Your task to perform on an android device: Set the phone to "Do not disturb". Image 0: 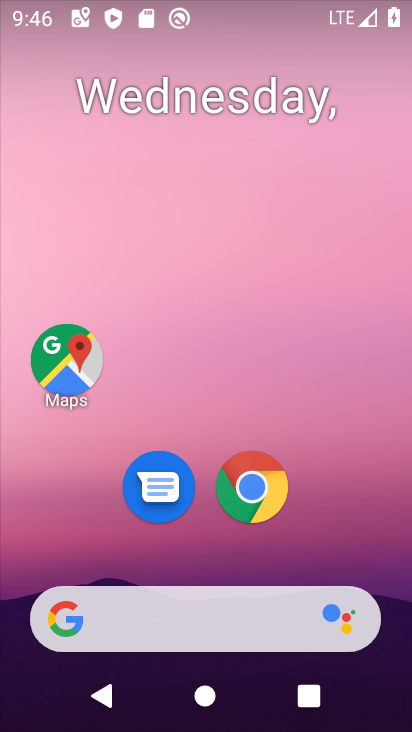
Step 0: drag from (354, 539) to (242, 49)
Your task to perform on an android device: Set the phone to "Do not disturb". Image 1: 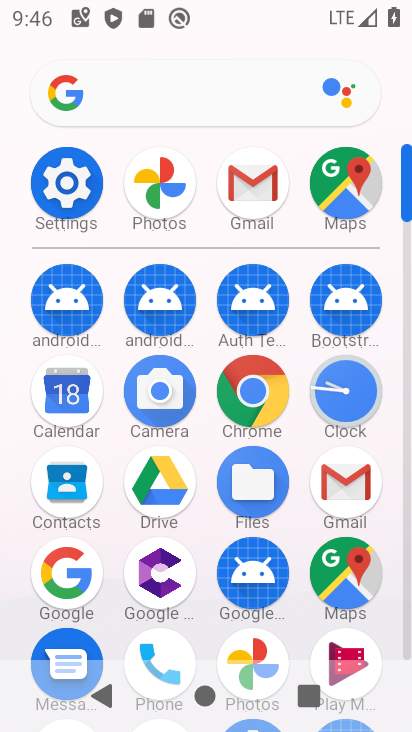
Step 1: click (69, 179)
Your task to perform on an android device: Set the phone to "Do not disturb". Image 2: 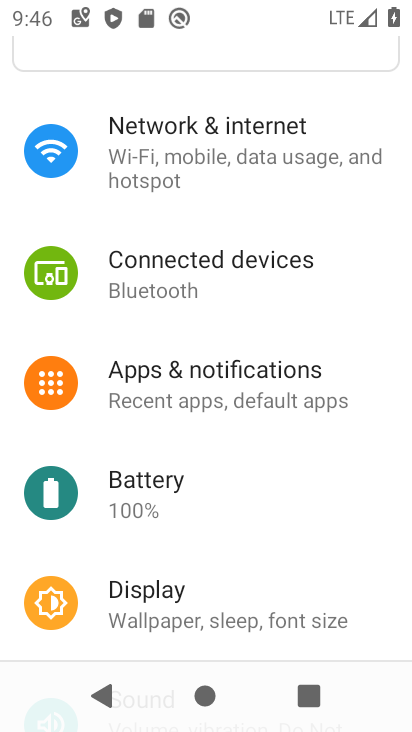
Step 2: drag from (222, 497) to (193, 204)
Your task to perform on an android device: Set the phone to "Do not disturb". Image 3: 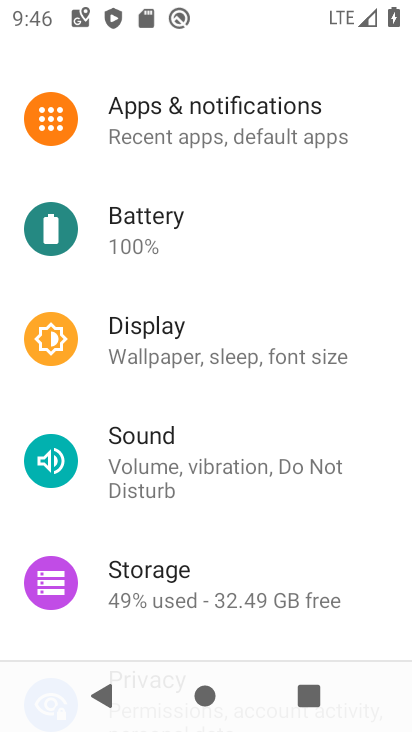
Step 3: click (142, 441)
Your task to perform on an android device: Set the phone to "Do not disturb". Image 4: 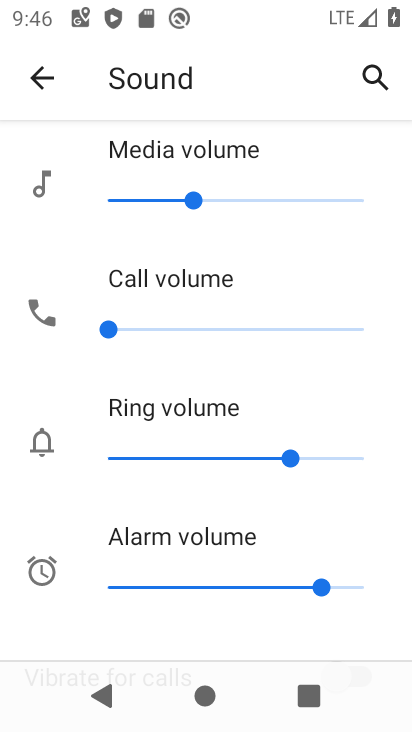
Step 4: drag from (252, 509) to (224, 140)
Your task to perform on an android device: Set the phone to "Do not disturb". Image 5: 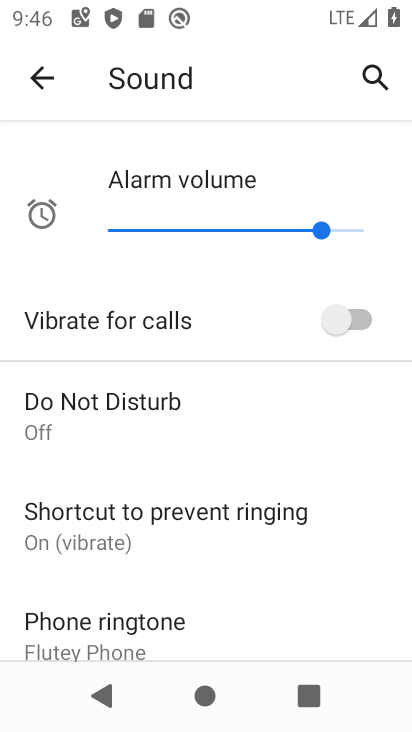
Step 5: click (70, 397)
Your task to perform on an android device: Set the phone to "Do not disturb". Image 6: 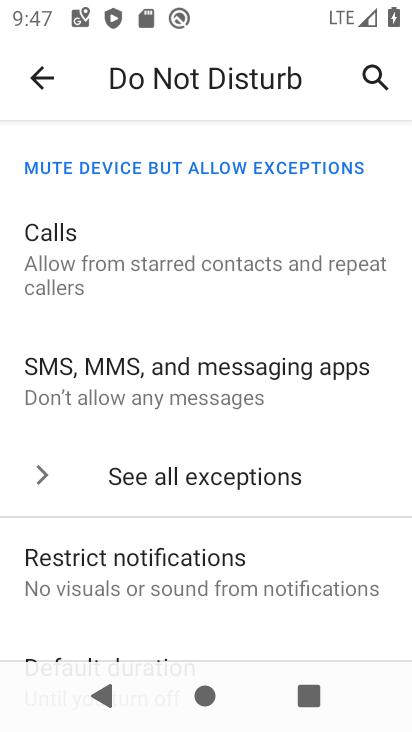
Step 6: drag from (237, 565) to (189, 179)
Your task to perform on an android device: Set the phone to "Do not disturb". Image 7: 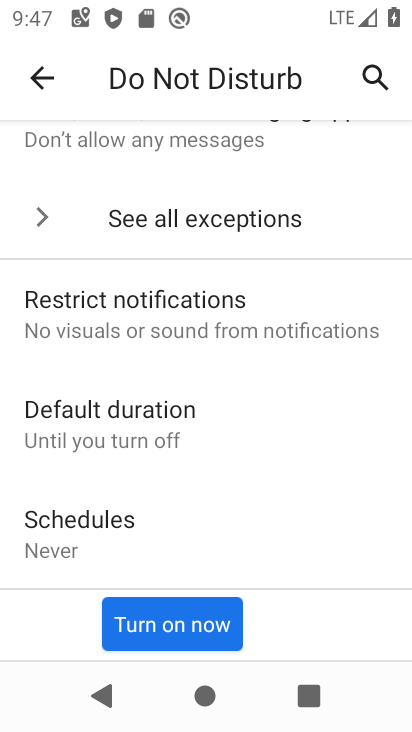
Step 7: click (173, 618)
Your task to perform on an android device: Set the phone to "Do not disturb". Image 8: 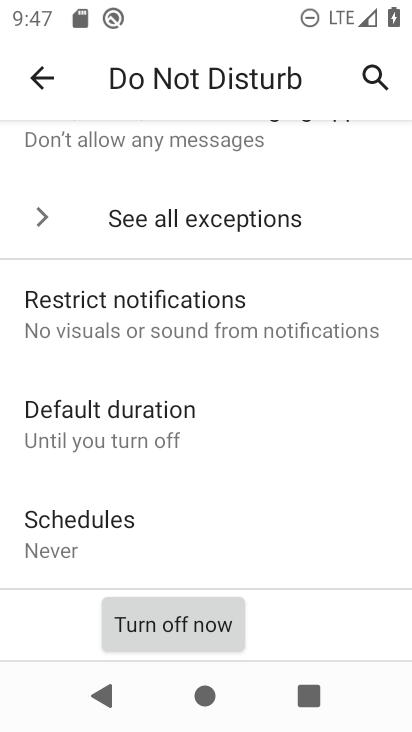
Step 8: task complete